Your task to perform on an android device: What's the weather going to be this weekend? Image 0: 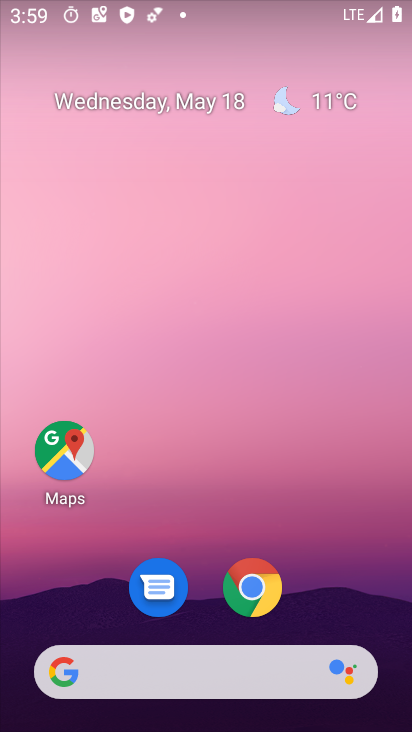
Step 0: drag from (213, 585) to (186, 0)
Your task to perform on an android device: What's the weather going to be this weekend? Image 1: 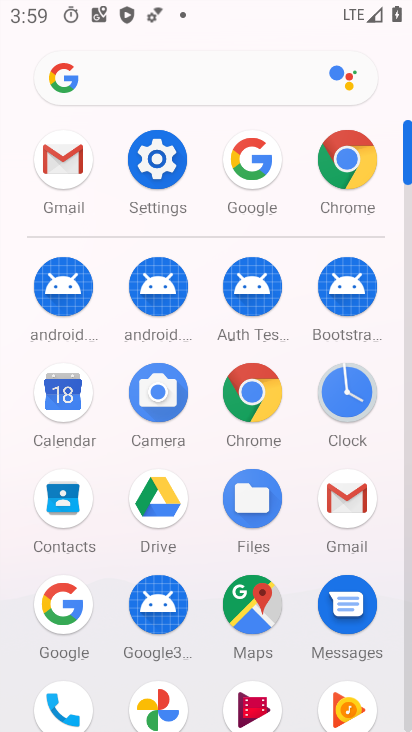
Step 1: click (77, 605)
Your task to perform on an android device: What's the weather going to be this weekend? Image 2: 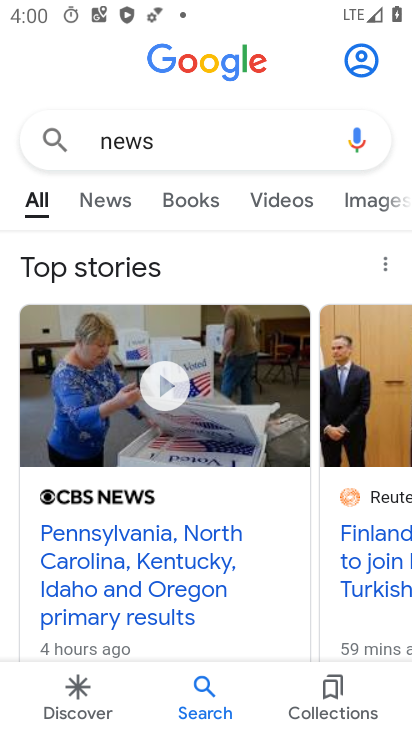
Step 2: click (222, 158)
Your task to perform on an android device: What's the weather going to be this weekend? Image 3: 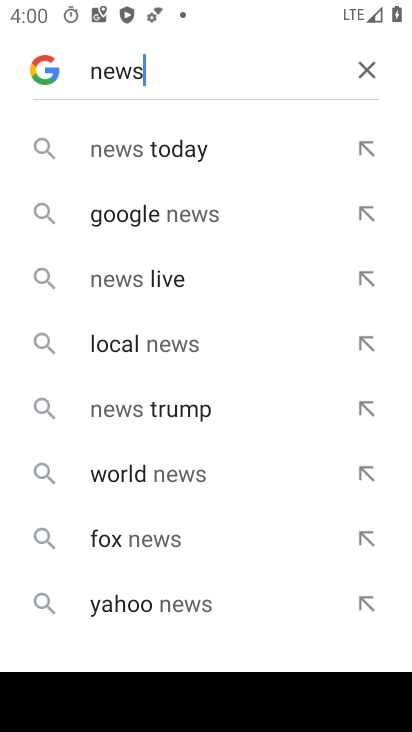
Step 3: click (375, 74)
Your task to perform on an android device: What's the weather going to be this weekend? Image 4: 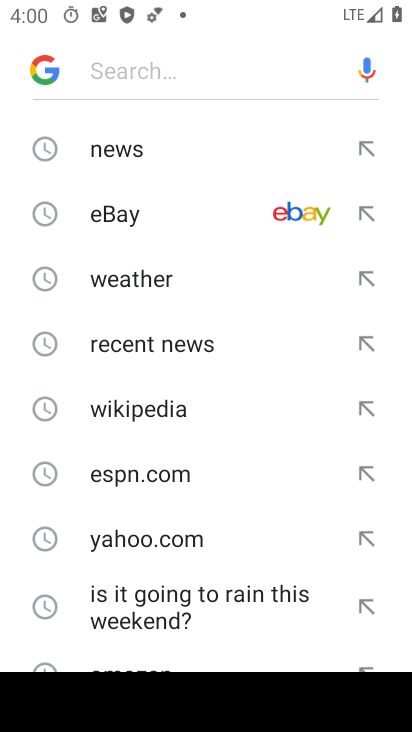
Step 4: click (134, 283)
Your task to perform on an android device: What's the weather going to be this weekend? Image 5: 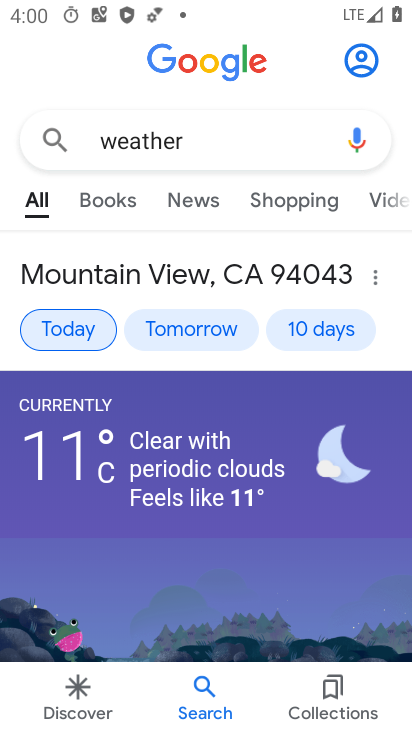
Step 5: drag from (179, 500) to (210, 248)
Your task to perform on an android device: What's the weather going to be this weekend? Image 6: 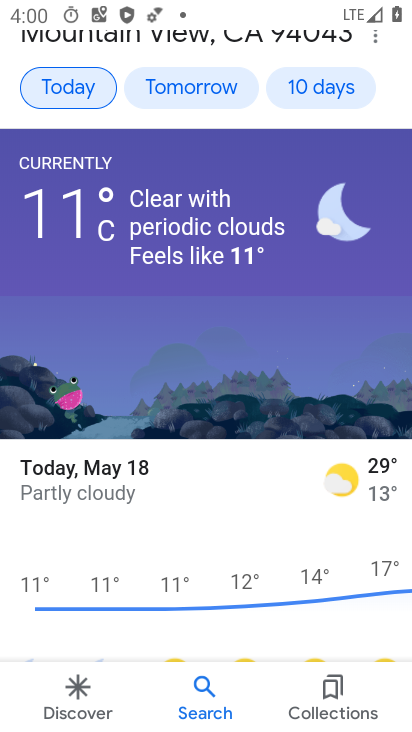
Step 6: click (317, 98)
Your task to perform on an android device: What's the weather going to be this weekend? Image 7: 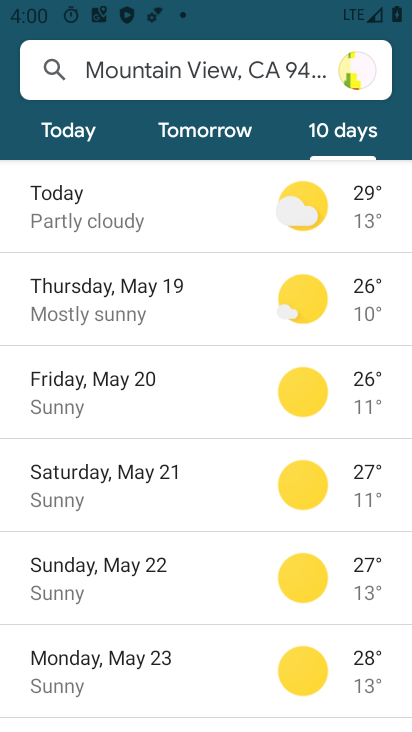
Step 7: task complete